Your task to perform on an android device: Go to calendar. Show me events next week Image 0: 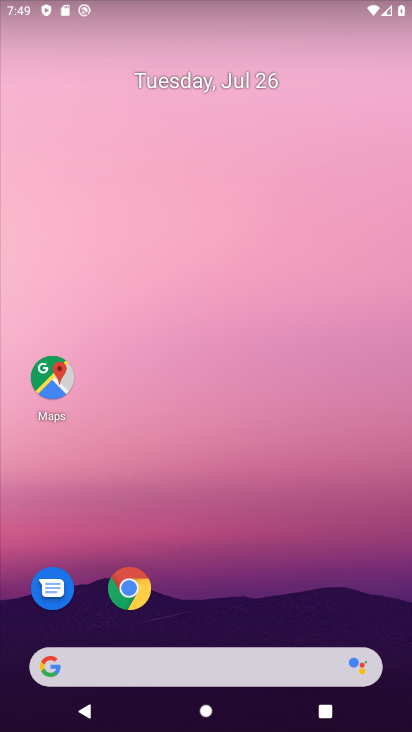
Step 0: drag from (301, 506) to (199, 210)
Your task to perform on an android device: Go to calendar. Show me events next week Image 1: 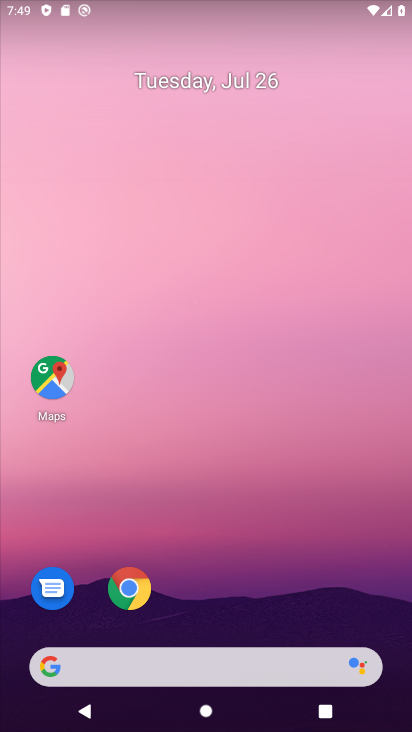
Step 1: drag from (323, 573) to (297, 132)
Your task to perform on an android device: Go to calendar. Show me events next week Image 2: 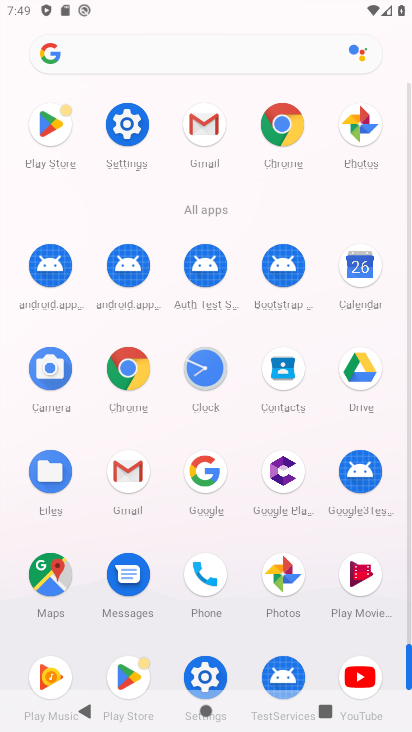
Step 2: click (363, 265)
Your task to perform on an android device: Go to calendar. Show me events next week Image 3: 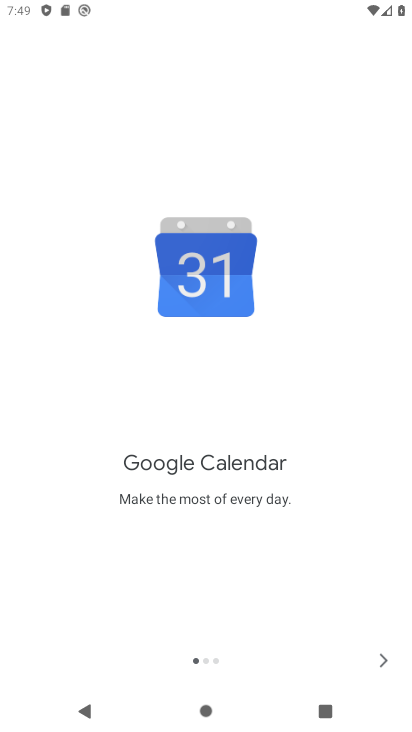
Step 3: click (389, 657)
Your task to perform on an android device: Go to calendar. Show me events next week Image 4: 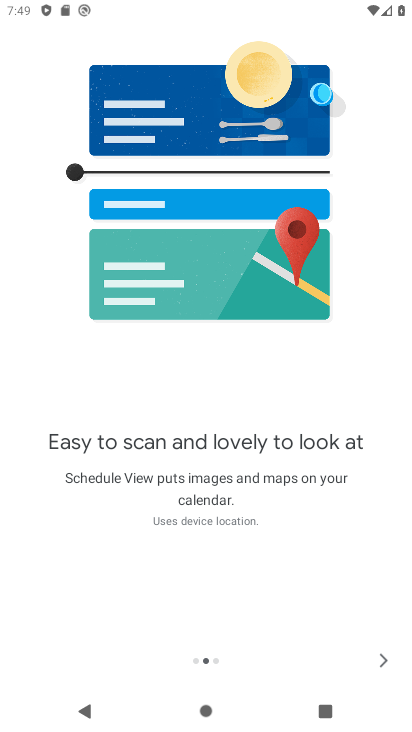
Step 4: click (389, 657)
Your task to perform on an android device: Go to calendar. Show me events next week Image 5: 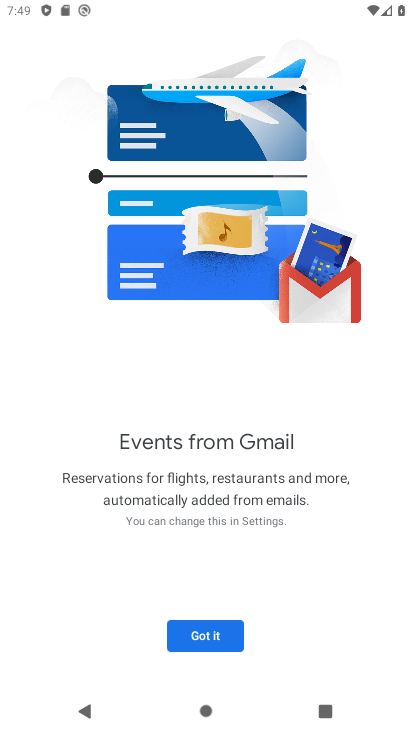
Step 5: click (389, 657)
Your task to perform on an android device: Go to calendar. Show me events next week Image 6: 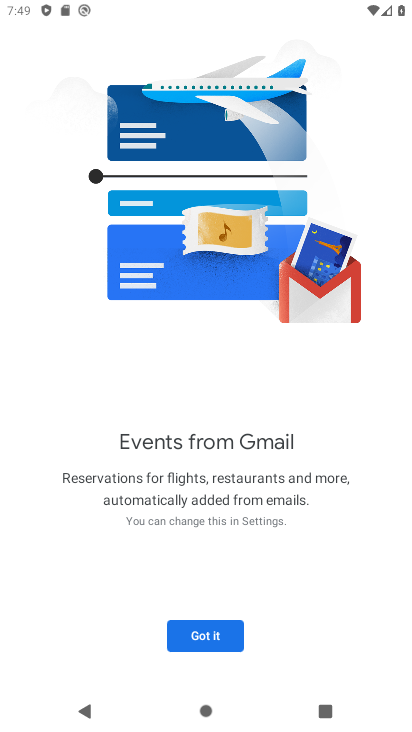
Step 6: click (185, 638)
Your task to perform on an android device: Go to calendar. Show me events next week Image 7: 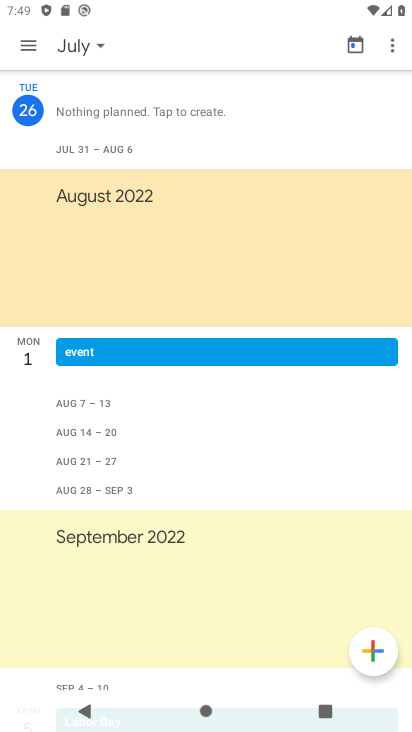
Step 7: click (65, 44)
Your task to perform on an android device: Go to calendar. Show me events next week Image 8: 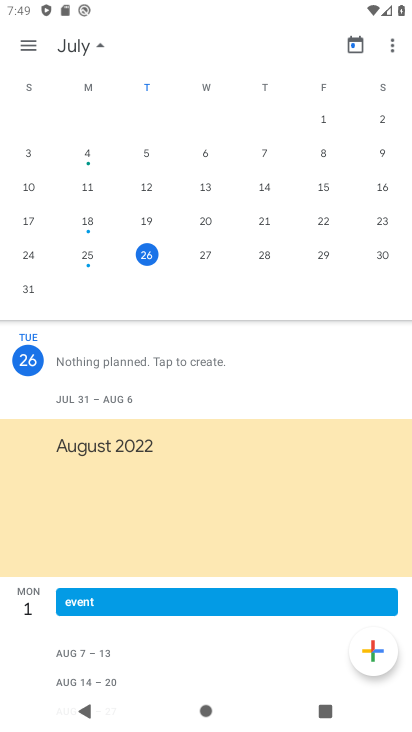
Step 8: drag from (349, 200) to (57, 181)
Your task to perform on an android device: Go to calendar. Show me events next week Image 9: 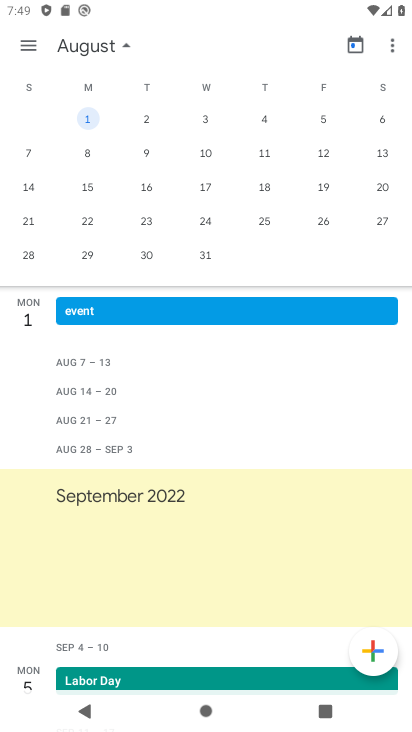
Step 9: click (203, 127)
Your task to perform on an android device: Go to calendar. Show me events next week Image 10: 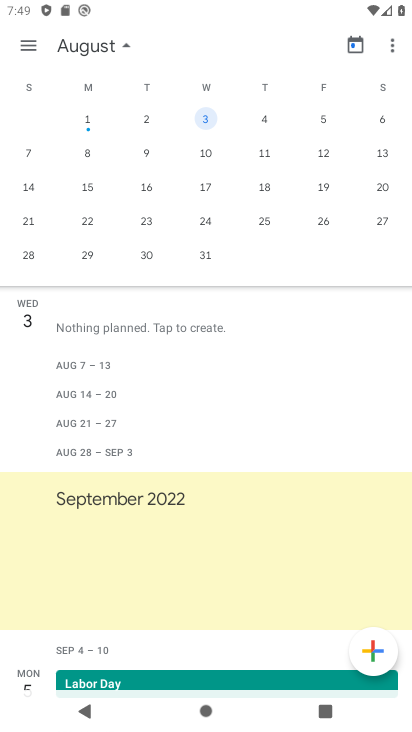
Step 10: click (29, 41)
Your task to perform on an android device: Go to calendar. Show me events next week Image 11: 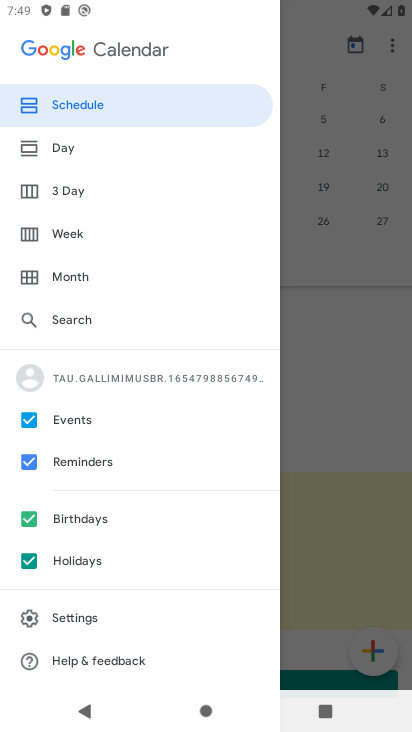
Step 11: click (74, 219)
Your task to perform on an android device: Go to calendar. Show me events next week Image 12: 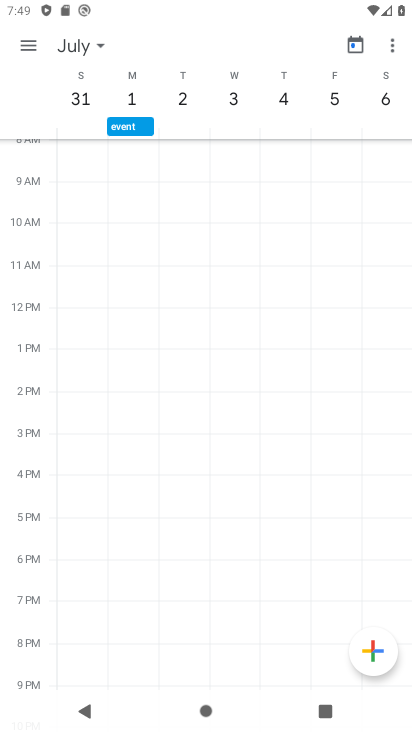
Step 12: task complete